Your task to perform on an android device: toggle data saver in the chrome app Image 0: 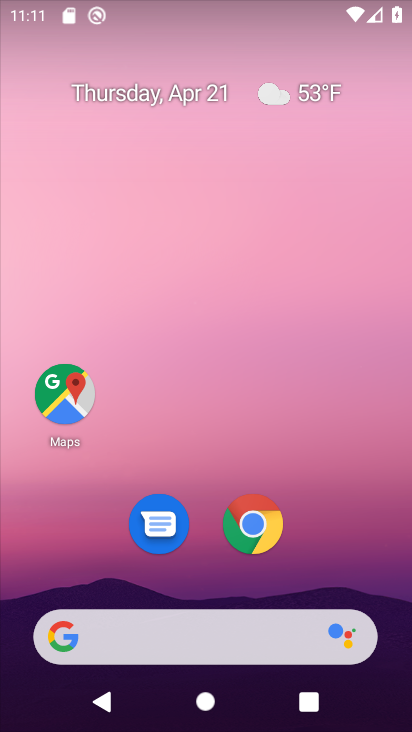
Step 0: click (263, 522)
Your task to perform on an android device: toggle data saver in the chrome app Image 1: 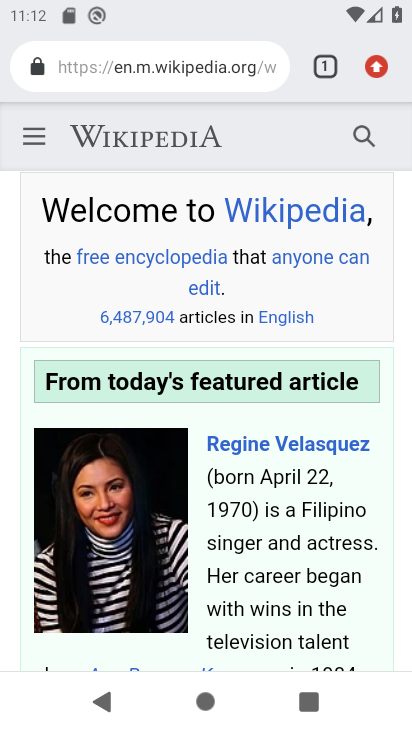
Step 1: drag from (372, 60) to (281, 516)
Your task to perform on an android device: toggle data saver in the chrome app Image 2: 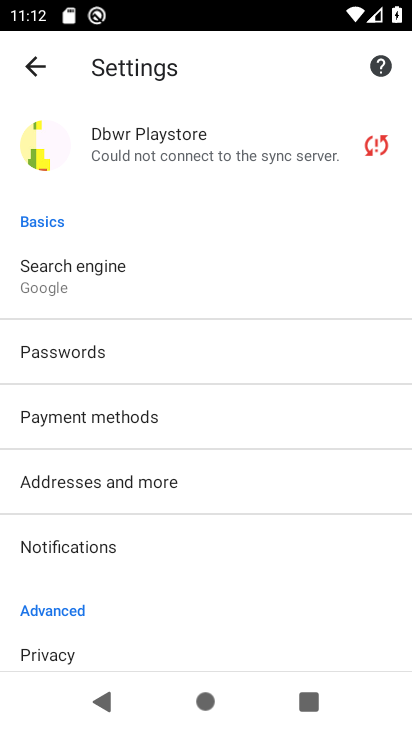
Step 2: drag from (286, 587) to (271, 258)
Your task to perform on an android device: toggle data saver in the chrome app Image 3: 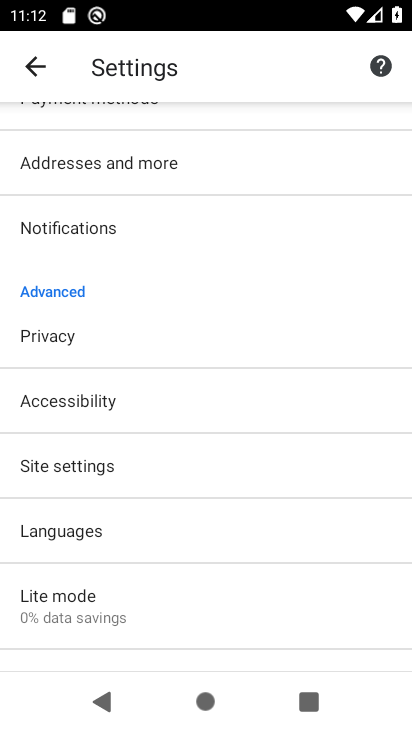
Step 3: click (241, 455)
Your task to perform on an android device: toggle data saver in the chrome app Image 4: 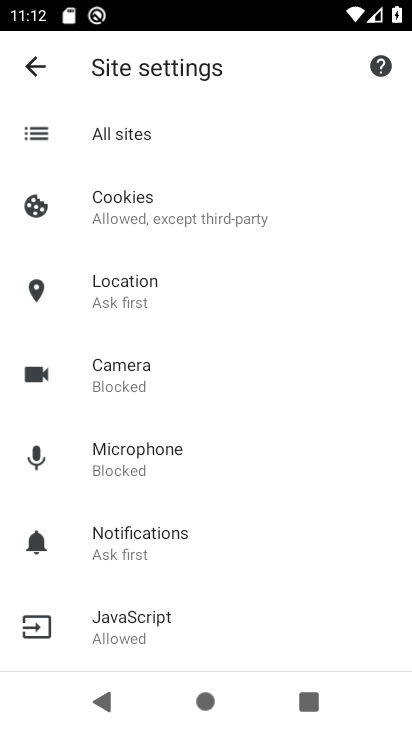
Step 4: press back button
Your task to perform on an android device: toggle data saver in the chrome app Image 5: 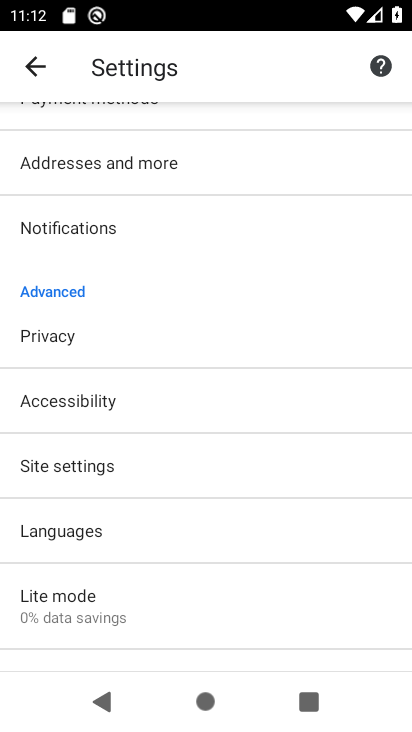
Step 5: click (264, 616)
Your task to perform on an android device: toggle data saver in the chrome app Image 6: 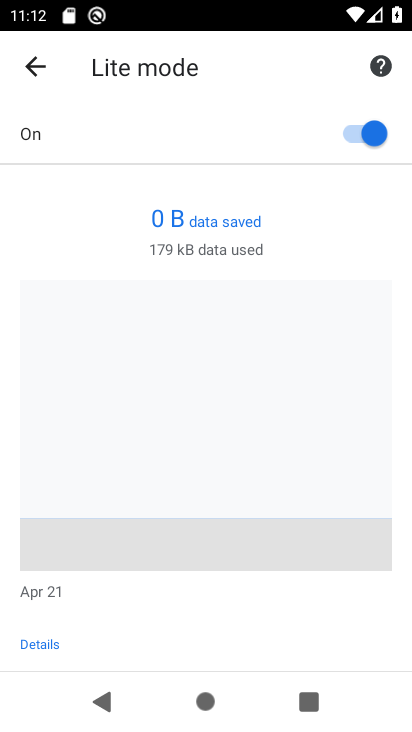
Step 6: click (353, 125)
Your task to perform on an android device: toggle data saver in the chrome app Image 7: 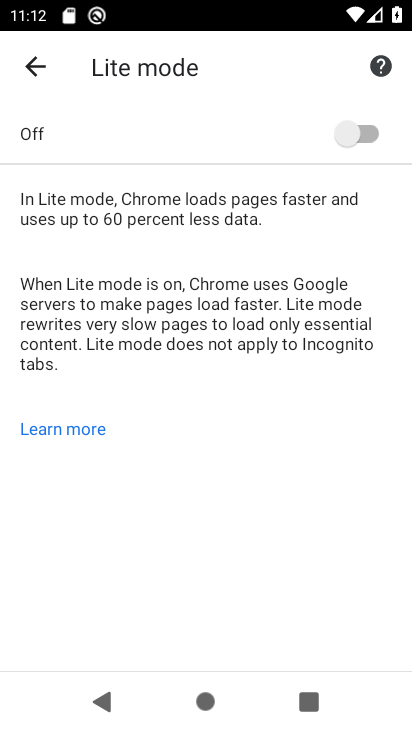
Step 7: task complete